Your task to perform on an android device: turn smart compose on in the gmail app Image 0: 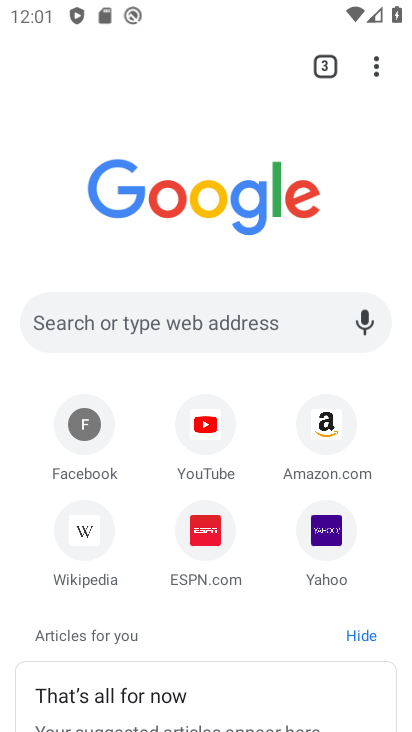
Step 0: press home button
Your task to perform on an android device: turn smart compose on in the gmail app Image 1: 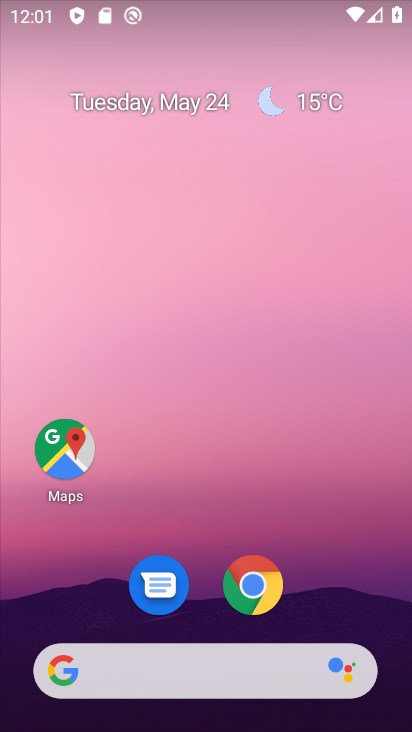
Step 1: drag from (191, 530) to (242, 26)
Your task to perform on an android device: turn smart compose on in the gmail app Image 2: 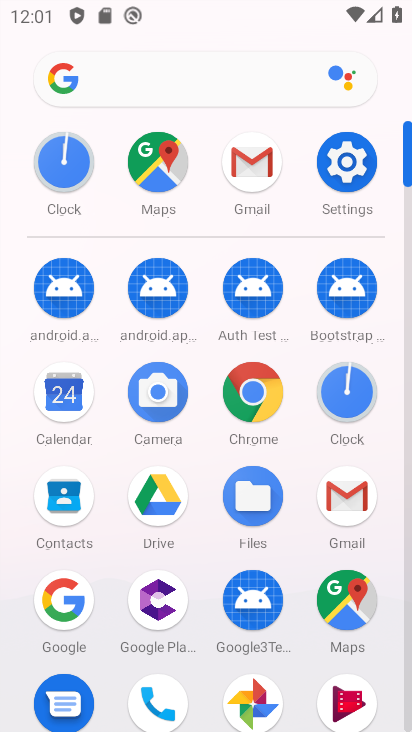
Step 2: click (257, 171)
Your task to perform on an android device: turn smart compose on in the gmail app Image 3: 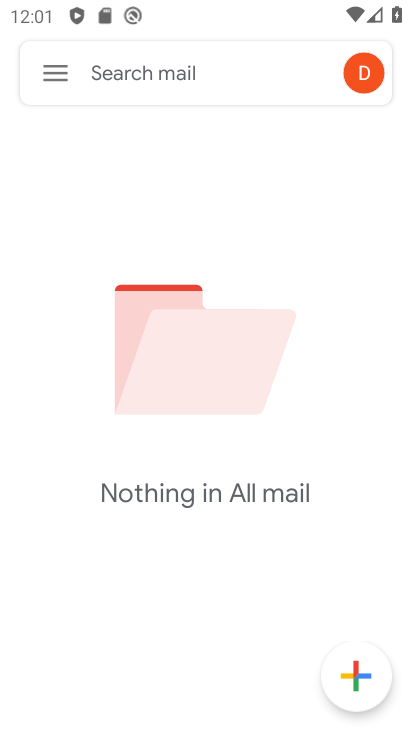
Step 3: click (51, 73)
Your task to perform on an android device: turn smart compose on in the gmail app Image 4: 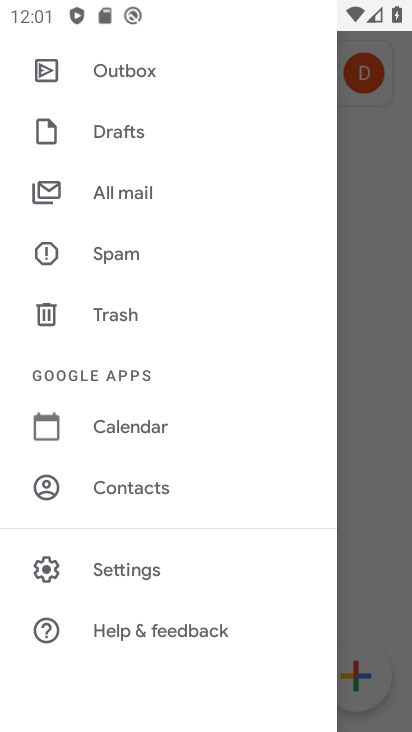
Step 4: click (157, 564)
Your task to perform on an android device: turn smart compose on in the gmail app Image 5: 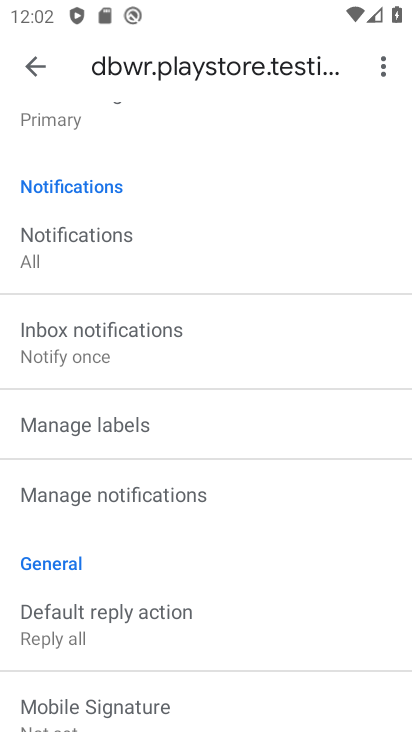
Step 5: task complete